Your task to perform on an android device: Open calendar and show me the first week of next month Image 0: 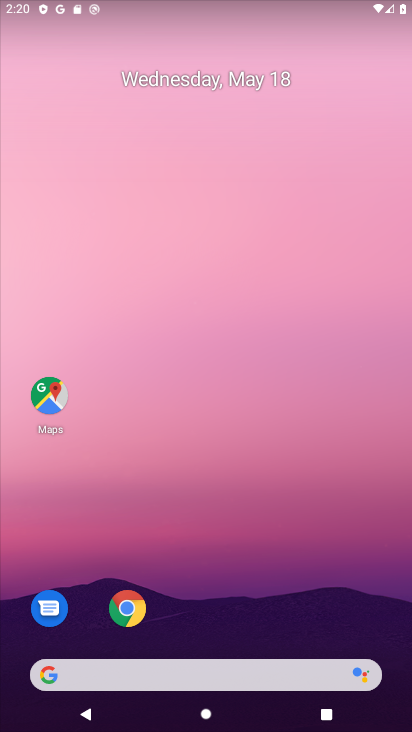
Step 0: drag from (355, 602) to (376, 6)
Your task to perform on an android device: Open calendar and show me the first week of next month Image 1: 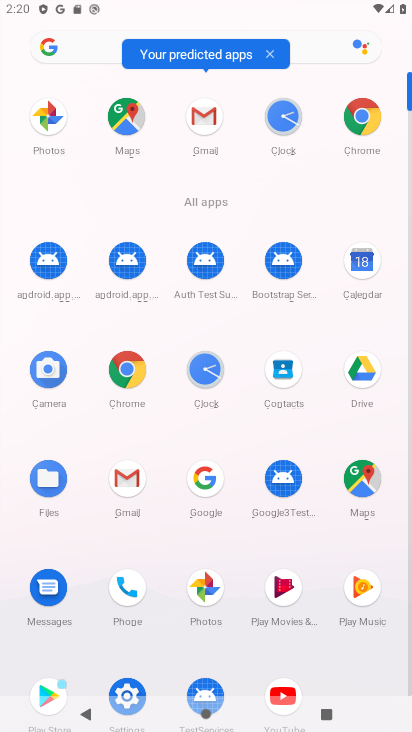
Step 1: click (370, 261)
Your task to perform on an android device: Open calendar and show me the first week of next month Image 2: 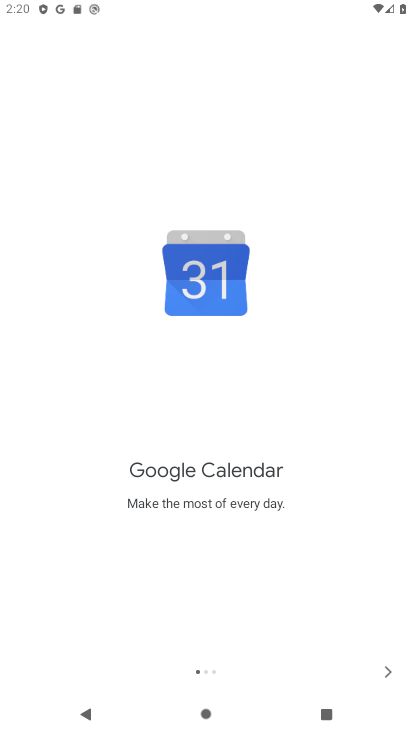
Step 2: click (387, 680)
Your task to perform on an android device: Open calendar and show me the first week of next month Image 3: 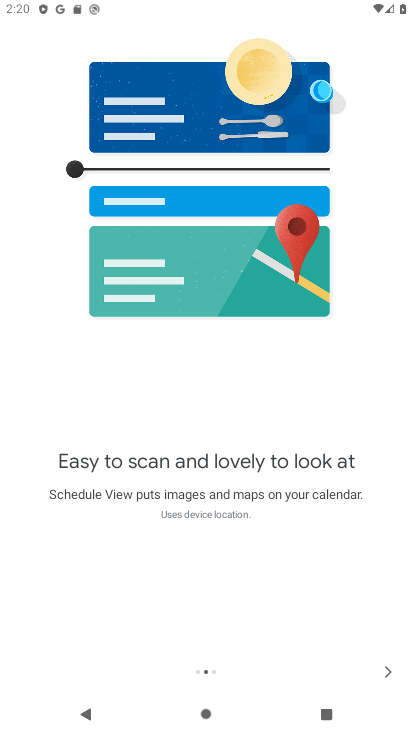
Step 3: click (387, 680)
Your task to perform on an android device: Open calendar and show me the first week of next month Image 4: 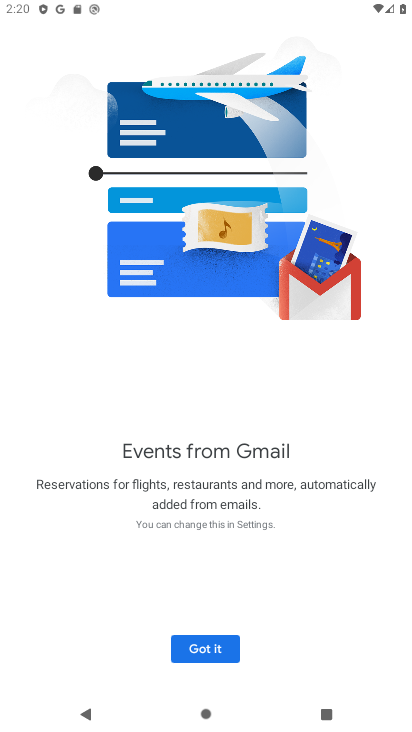
Step 4: click (214, 652)
Your task to perform on an android device: Open calendar and show me the first week of next month Image 5: 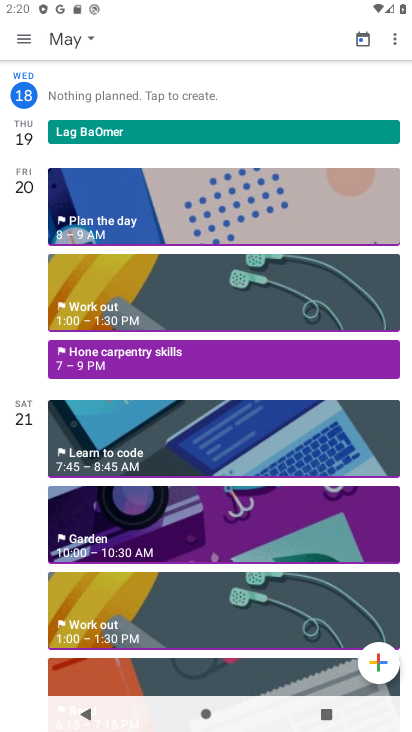
Step 5: click (83, 42)
Your task to perform on an android device: Open calendar and show me the first week of next month Image 6: 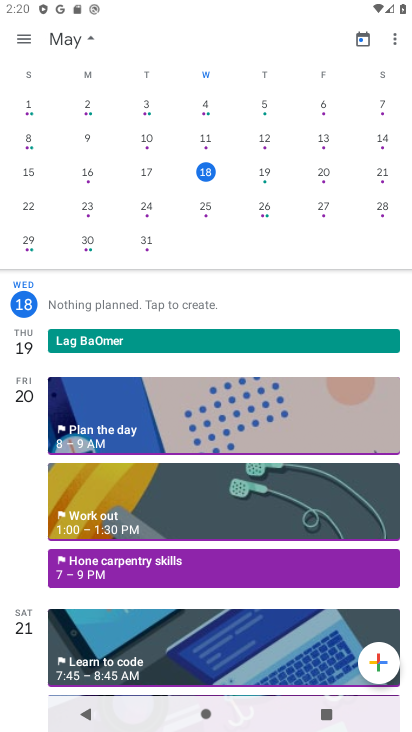
Step 6: drag from (330, 184) to (12, 192)
Your task to perform on an android device: Open calendar and show me the first week of next month Image 7: 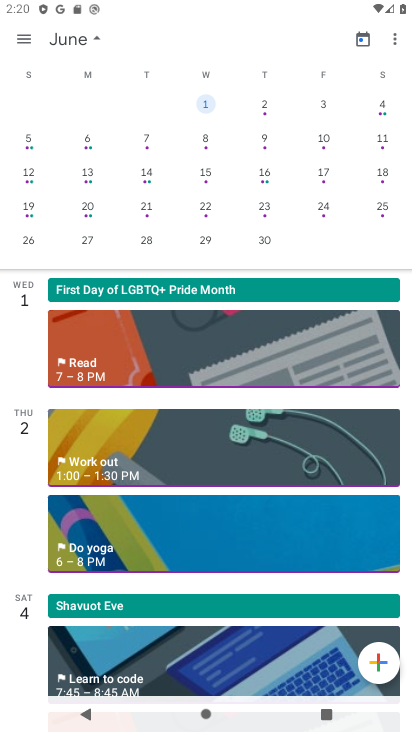
Step 7: click (20, 39)
Your task to perform on an android device: Open calendar and show me the first week of next month Image 8: 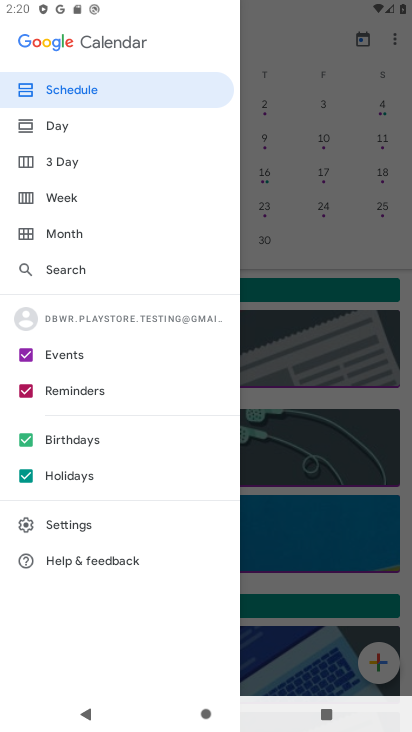
Step 8: click (70, 202)
Your task to perform on an android device: Open calendar and show me the first week of next month Image 9: 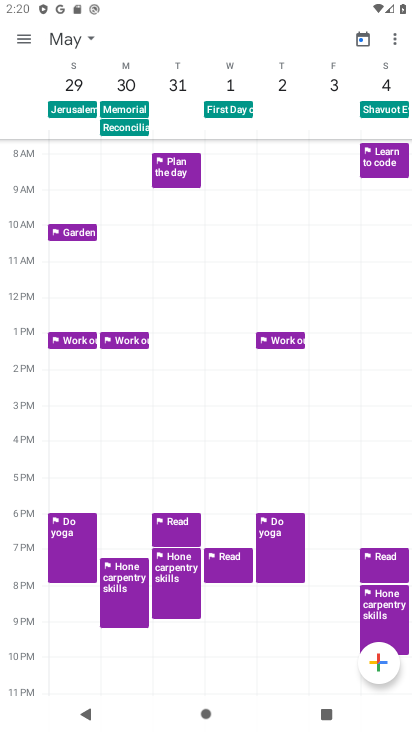
Step 9: task complete